Your task to perform on an android device: toggle notifications settings in the gmail app Image 0: 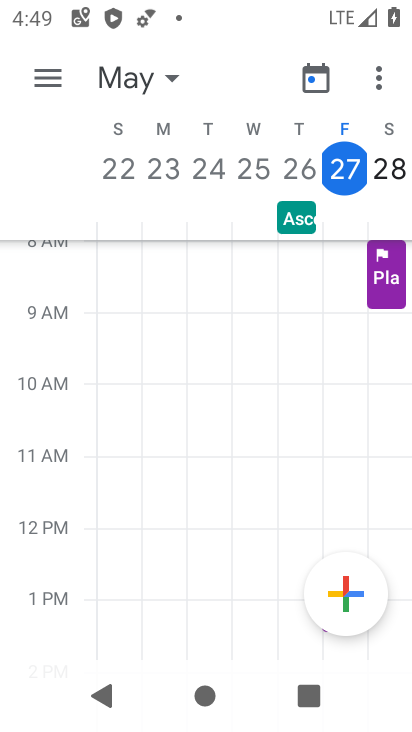
Step 0: press home button
Your task to perform on an android device: toggle notifications settings in the gmail app Image 1: 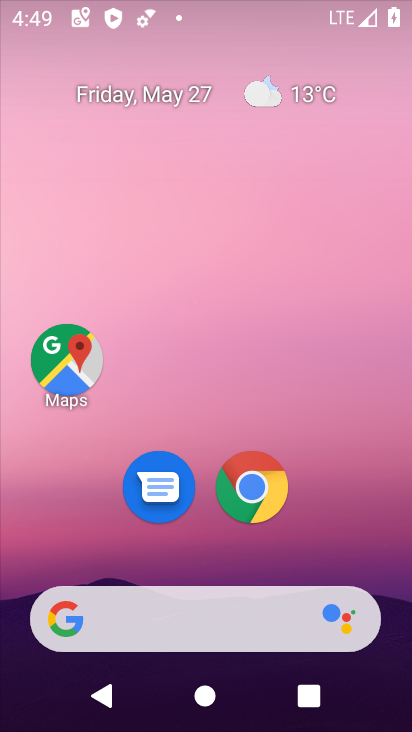
Step 1: drag from (308, 522) to (352, 110)
Your task to perform on an android device: toggle notifications settings in the gmail app Image 2: 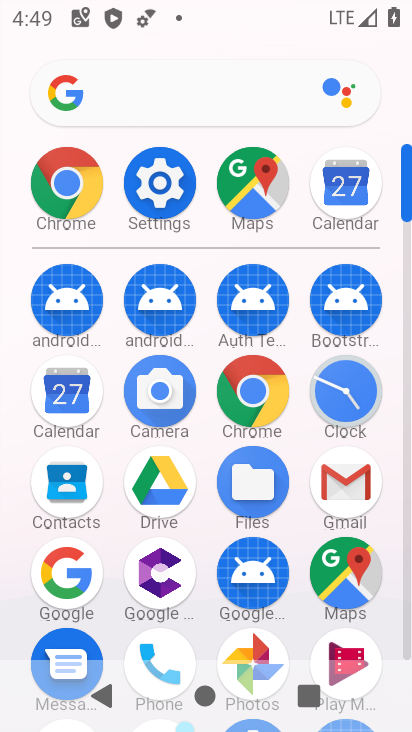
Step 2: click (345, 478)
Your task to perform on an android device: toggle notifications settings in the gmail app Image 3: 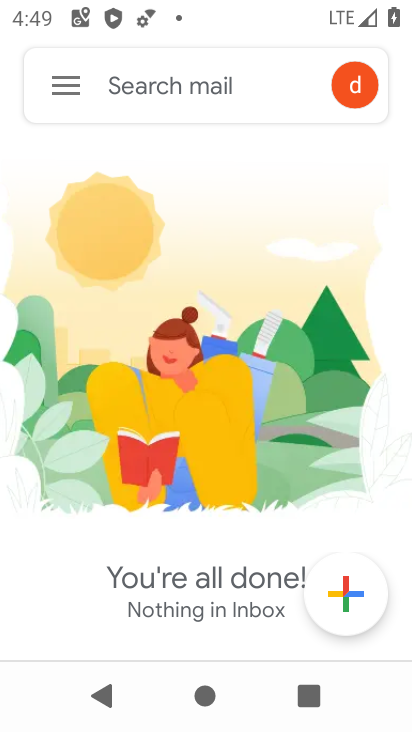
Step 3: click (70, 82)
Your task to perform on an android device: toggle notifications settings in the gmail app Image 4: 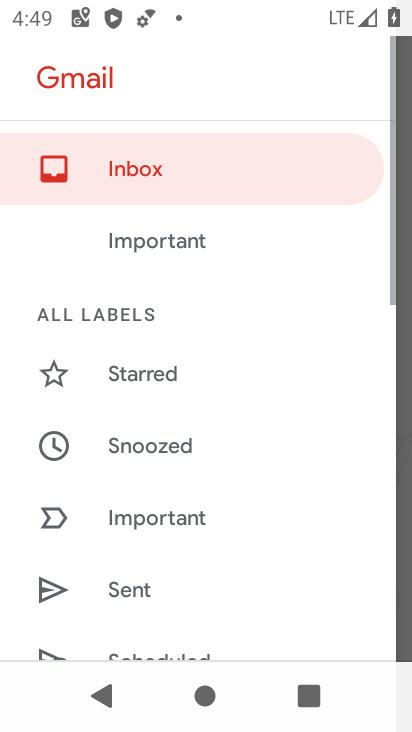
Step 4: drag from (166, 578) to (267, 173)
Your task to perform on an android device: toggle notifications settings in the gmail app Image 5: 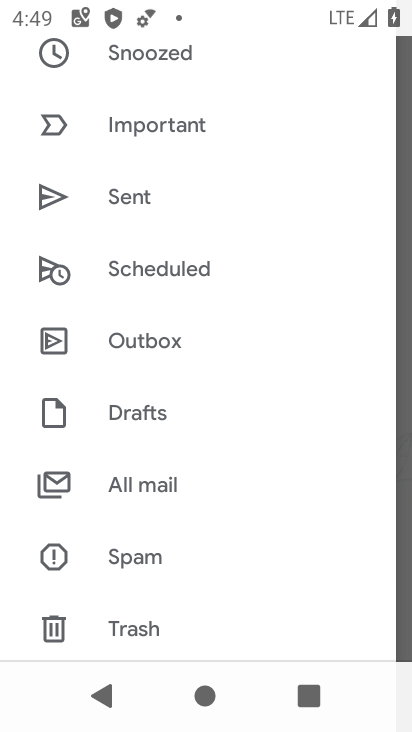
Step 5: drag from (167, 574) to (287, 155)
Your task to perform on an android device: toggle notifications settings in the gmail app Image 6: 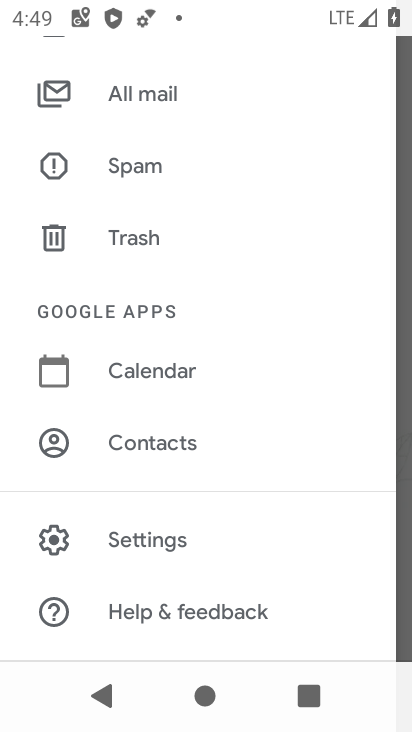
Step 6: click (153, 531)
Your task to perform on an android device: toggle notifications settings in the gmail app Image 7: 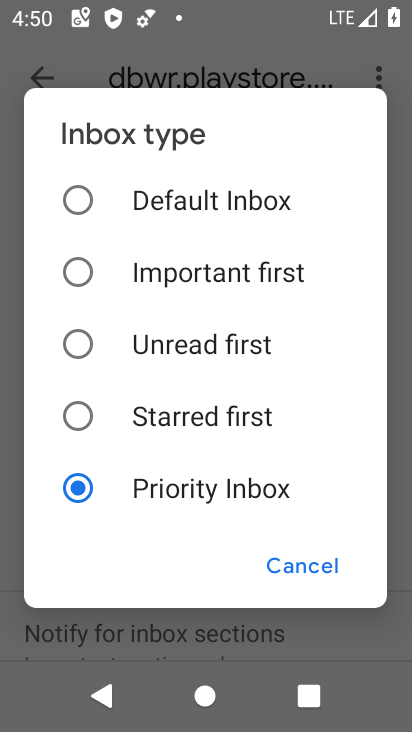
Step 7: click (189, 421)
Your task to perform on an android device: toggle notifications settings in the gmail app Image 8: 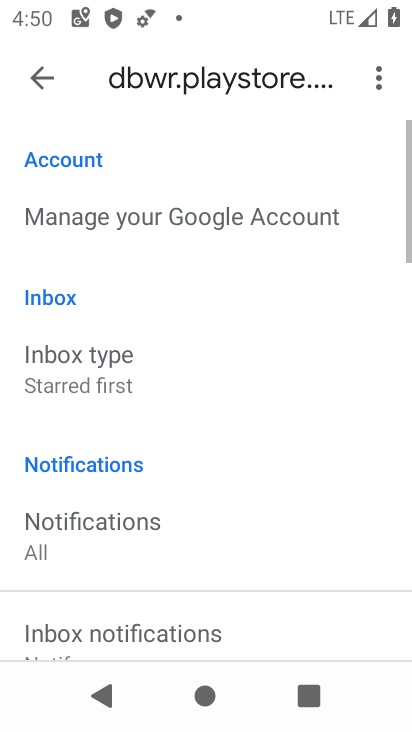
Step 8: task complete